Your task to perform on an android device: delete the emails in spam in the gmail app Image 0: 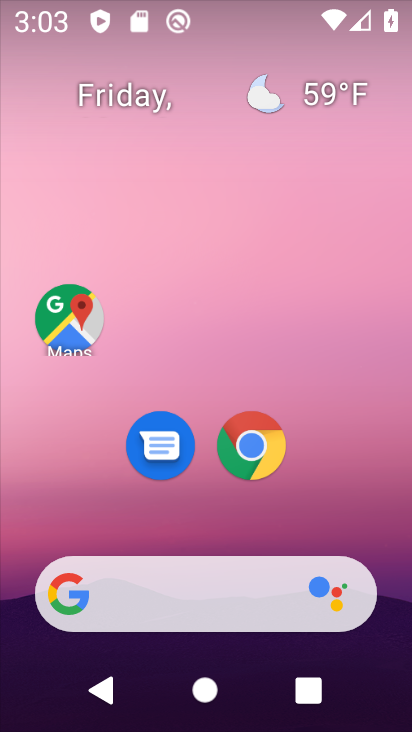
Step 0: drag from (395, 550) to (300, 130)
Your task to perform on an android device: delete the emails in spam in the gmail app Image 1: 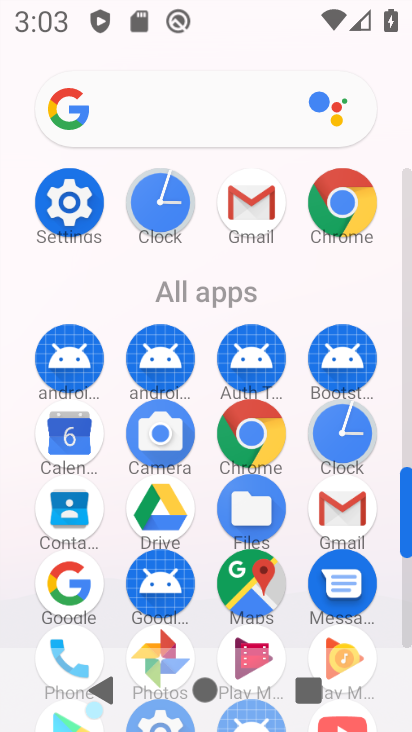
Step 1: click (347, 508)
Your task to perform on an android device: delete the emails in spam in the gmail app Image 2: 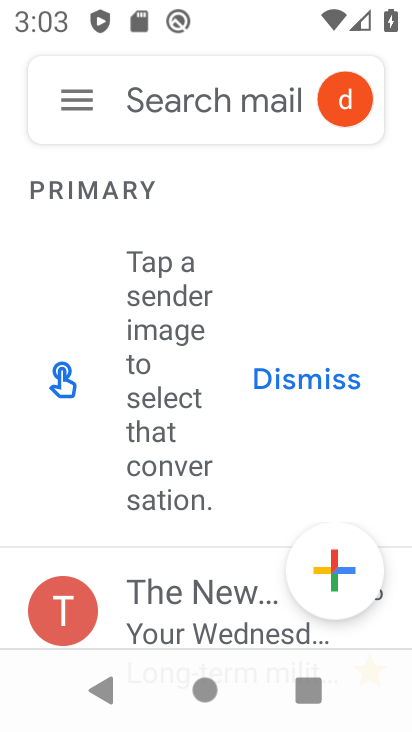
Step 2: drag from (209, 545) to (185, 198)
Your task to perform on an android device: delete the emails in spam in the gmail app Image 3: 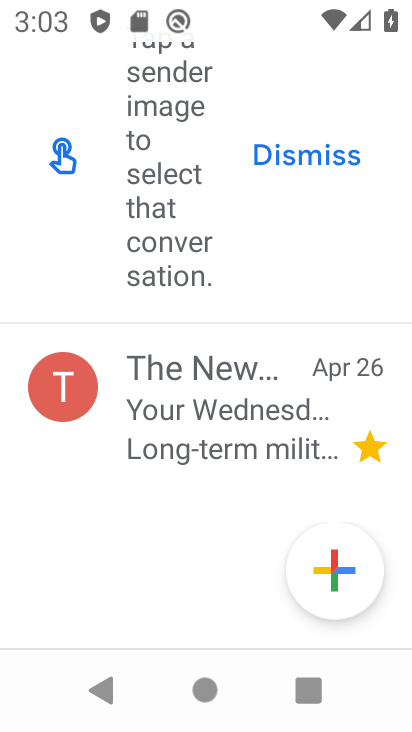
Step 3: click (189, 389)
Your task to perform on an android device: delete the emails in spam in the gmail app Image 4: 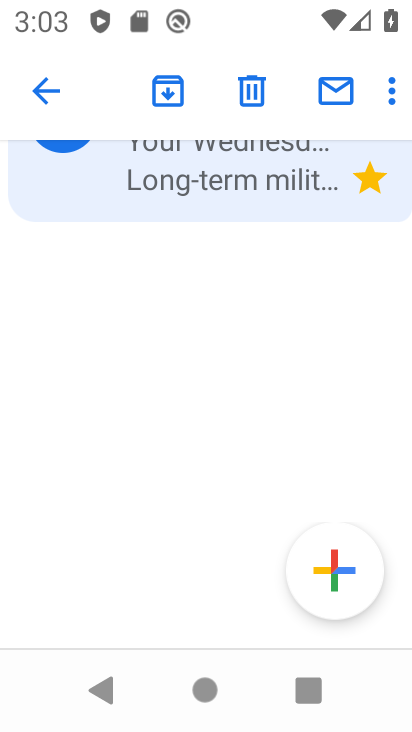
Step 4: click (254, 88)
Your task to perform on an android device: delete the emails in spam in the gmail app Image 5: 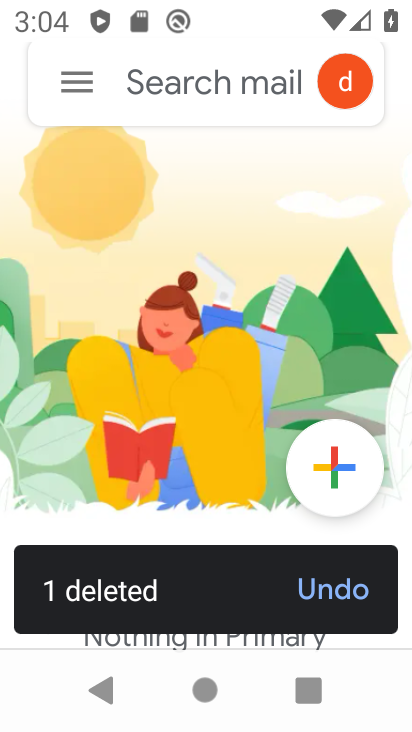
Step 5: task complete